Your task to perform on an android device: check google app version Image 0: 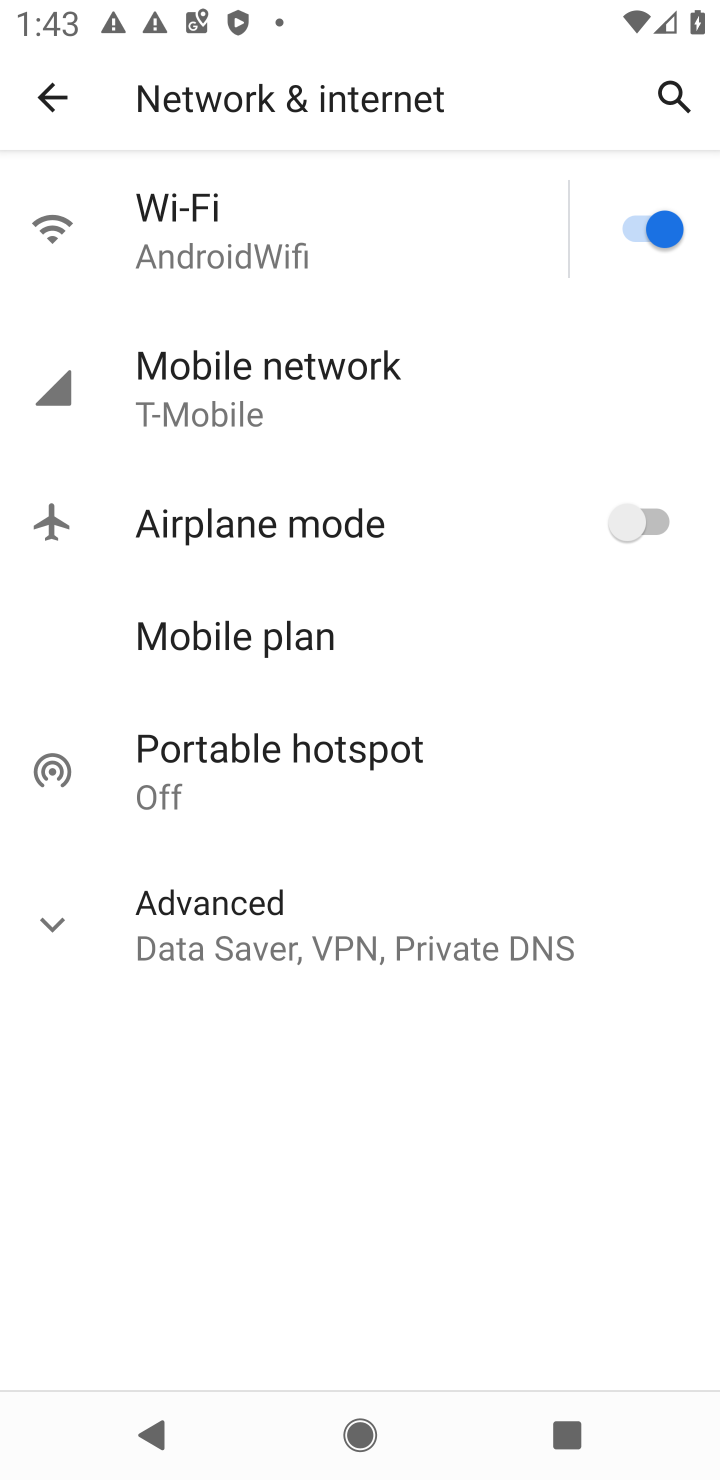
Step 0: press home button
Your task to perform on an android device: check google app version Image 1: 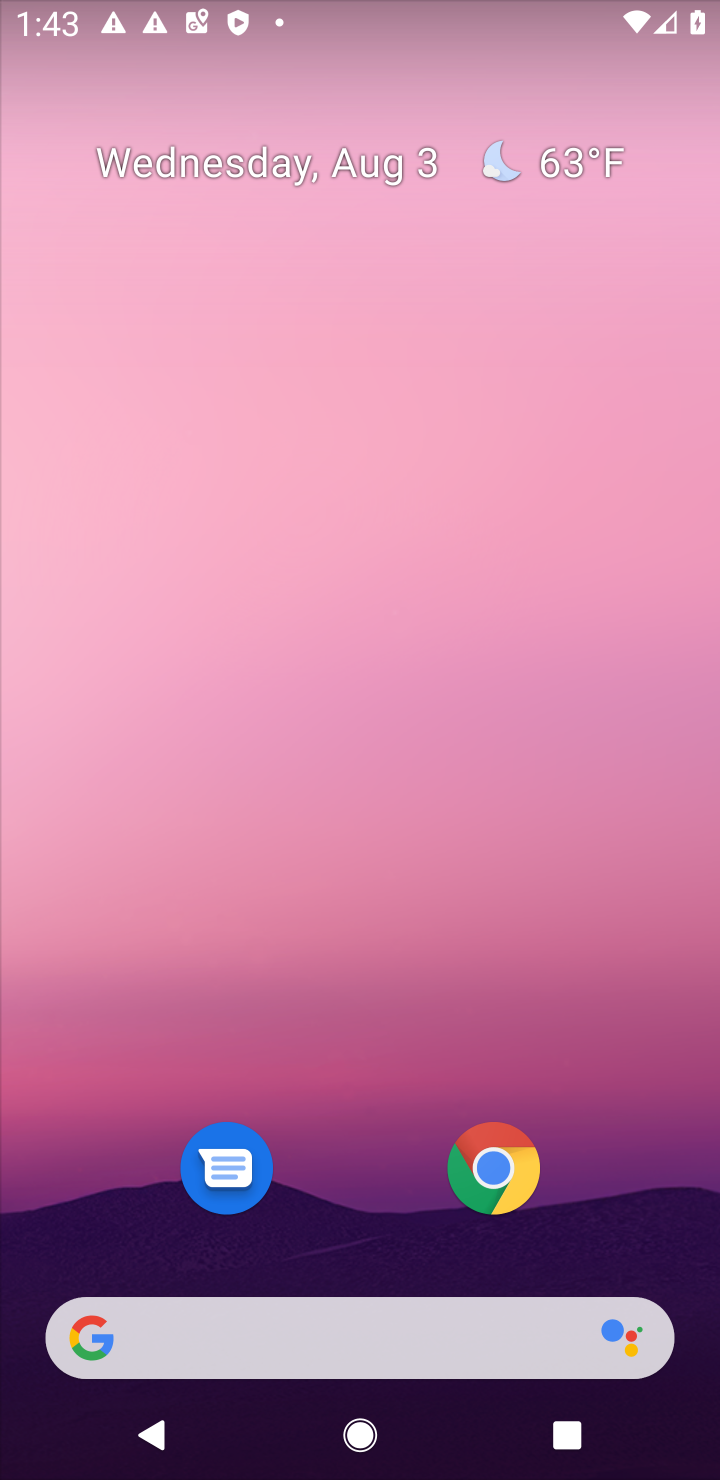
Step 1: click (497, 1167)
Your task to perform on an android device: check google app version Image 2: 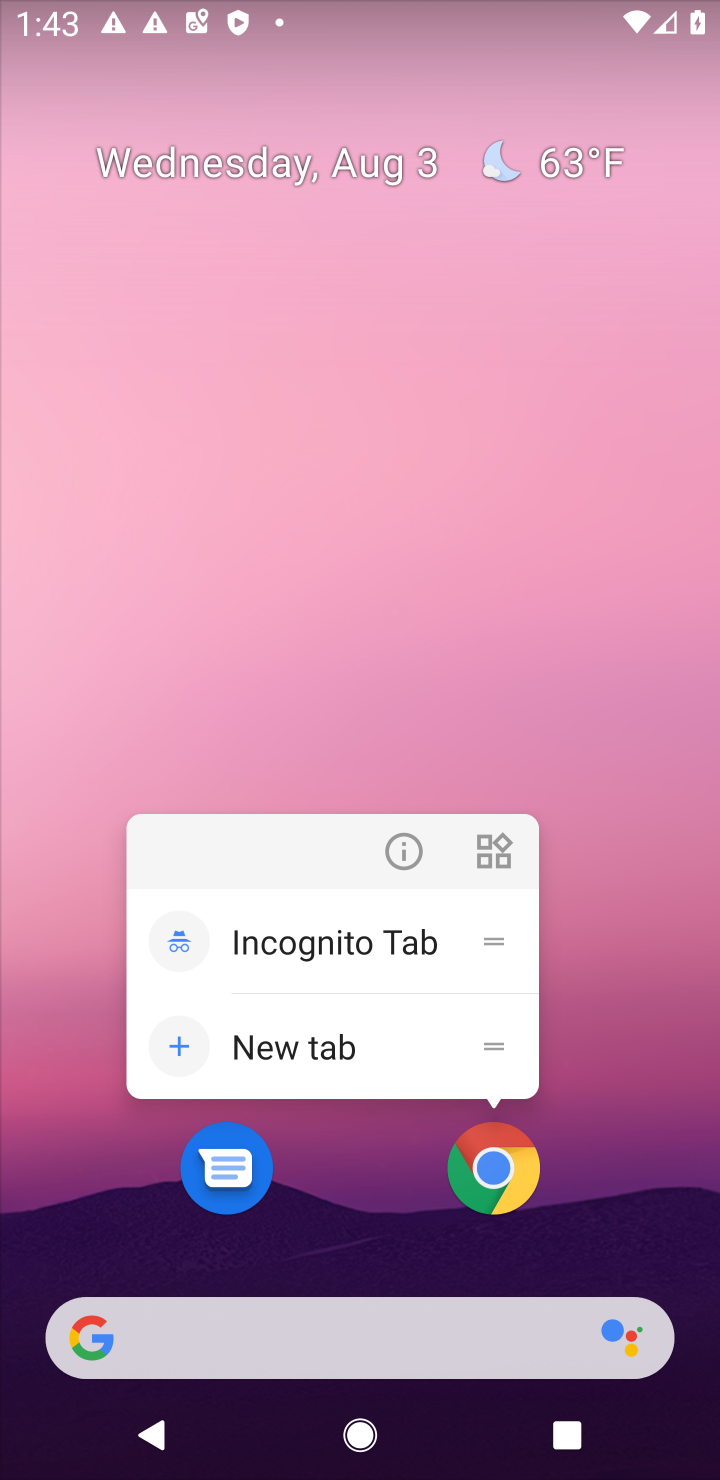
Step 2: click (494, 1167)
Your task to perform on an android device: check google app version Image 3: 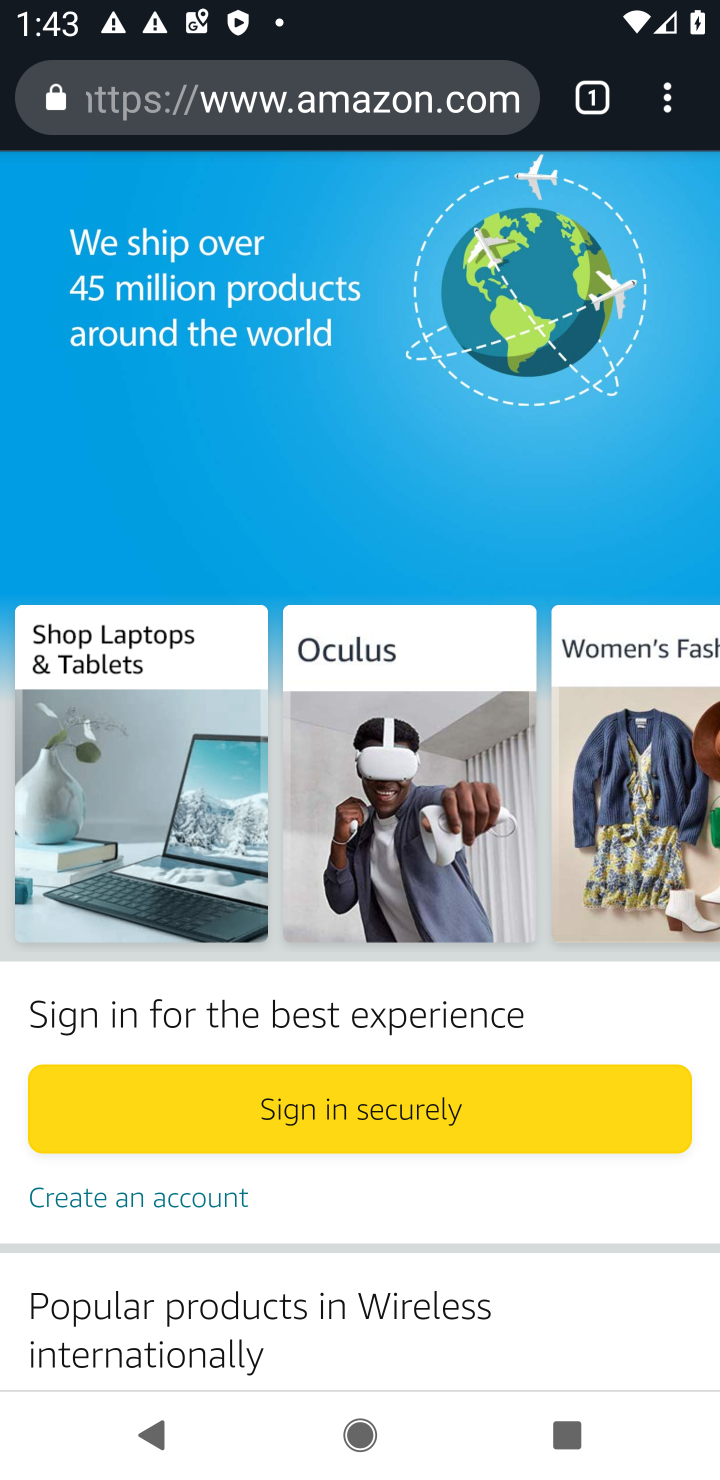
Step 3: click (659, 120)
Your task to perform on an android device: check google app version Image 4: 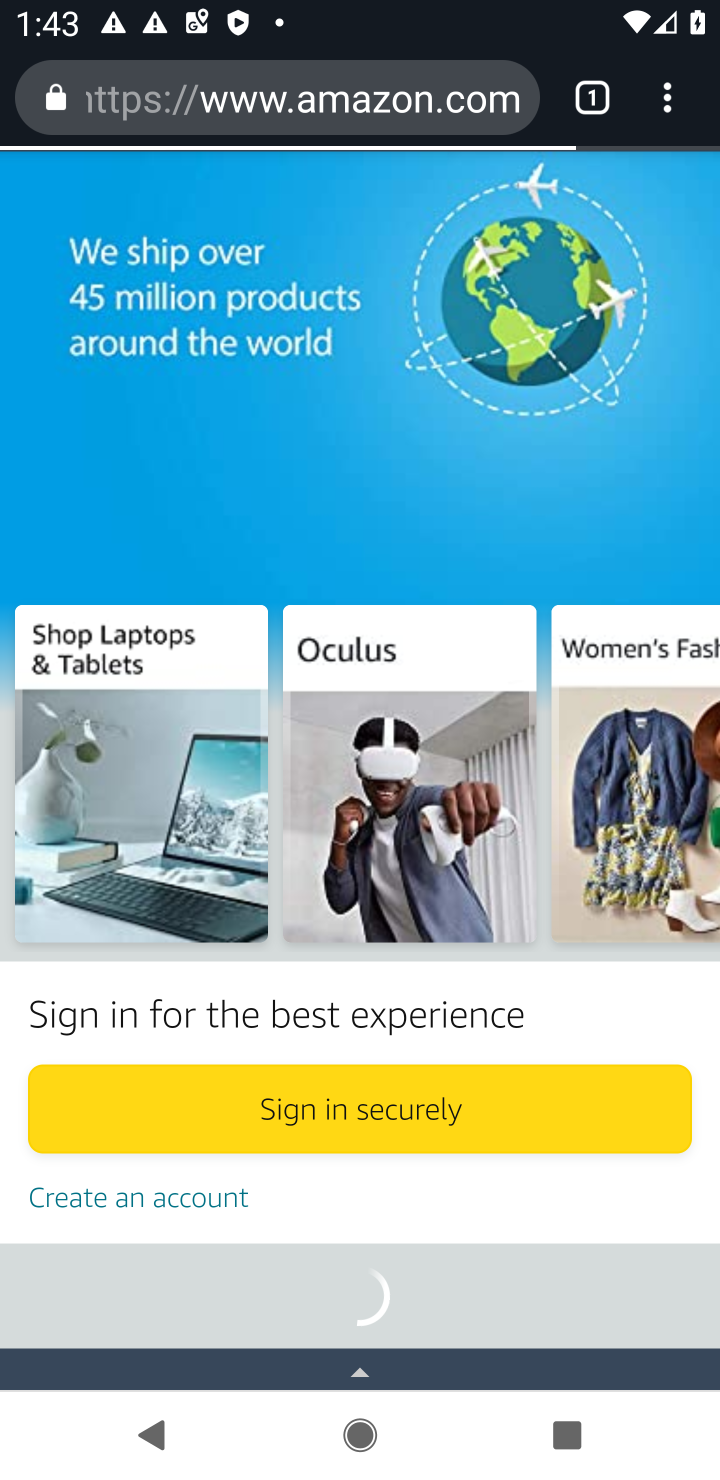
Step 4: click (661, 116)
Your task to perform on an android device: check google app version Image 5: 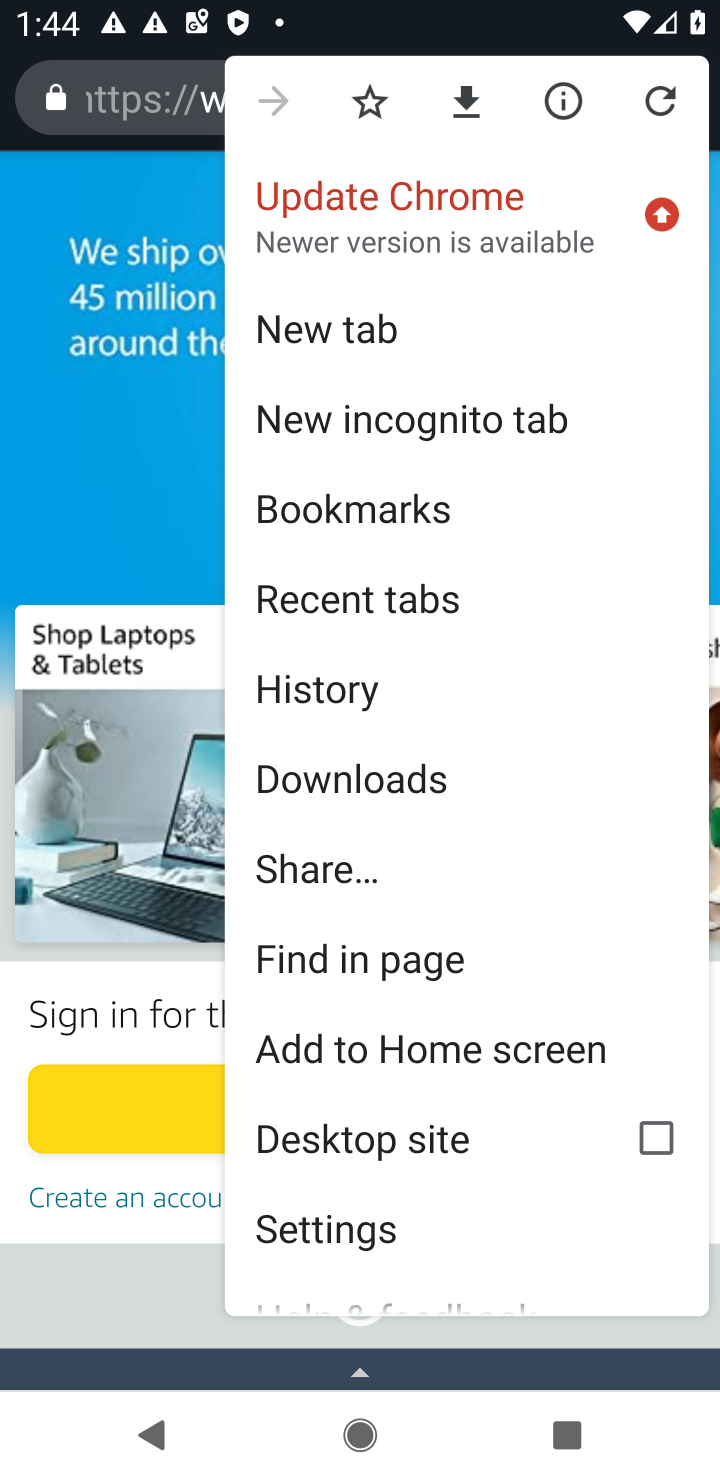
Step 5: click (339, 1228)
Your task to perform on an android device: check google app version Image 6: 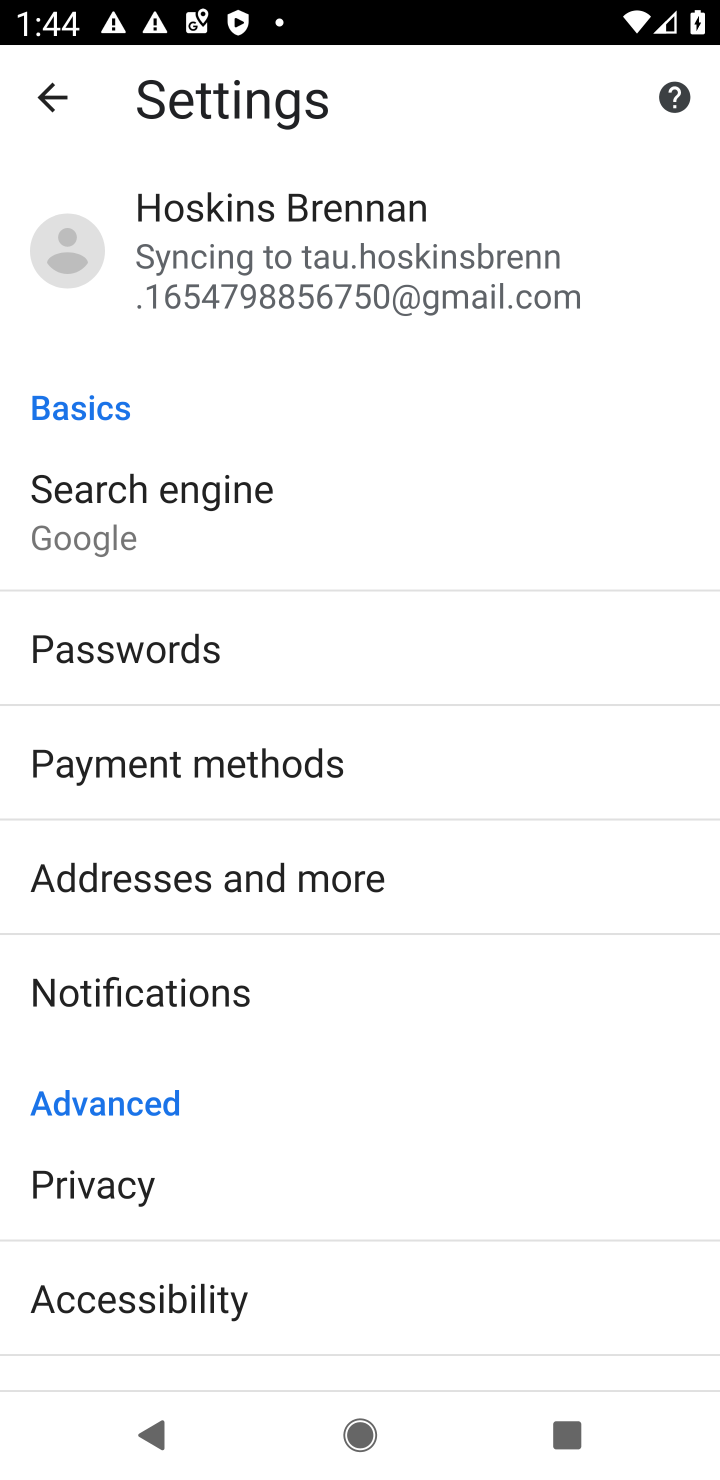
Step 6: drag from (388, 1350) to (431, 483)
Your task to perform on an android device: check google app version Image 7: 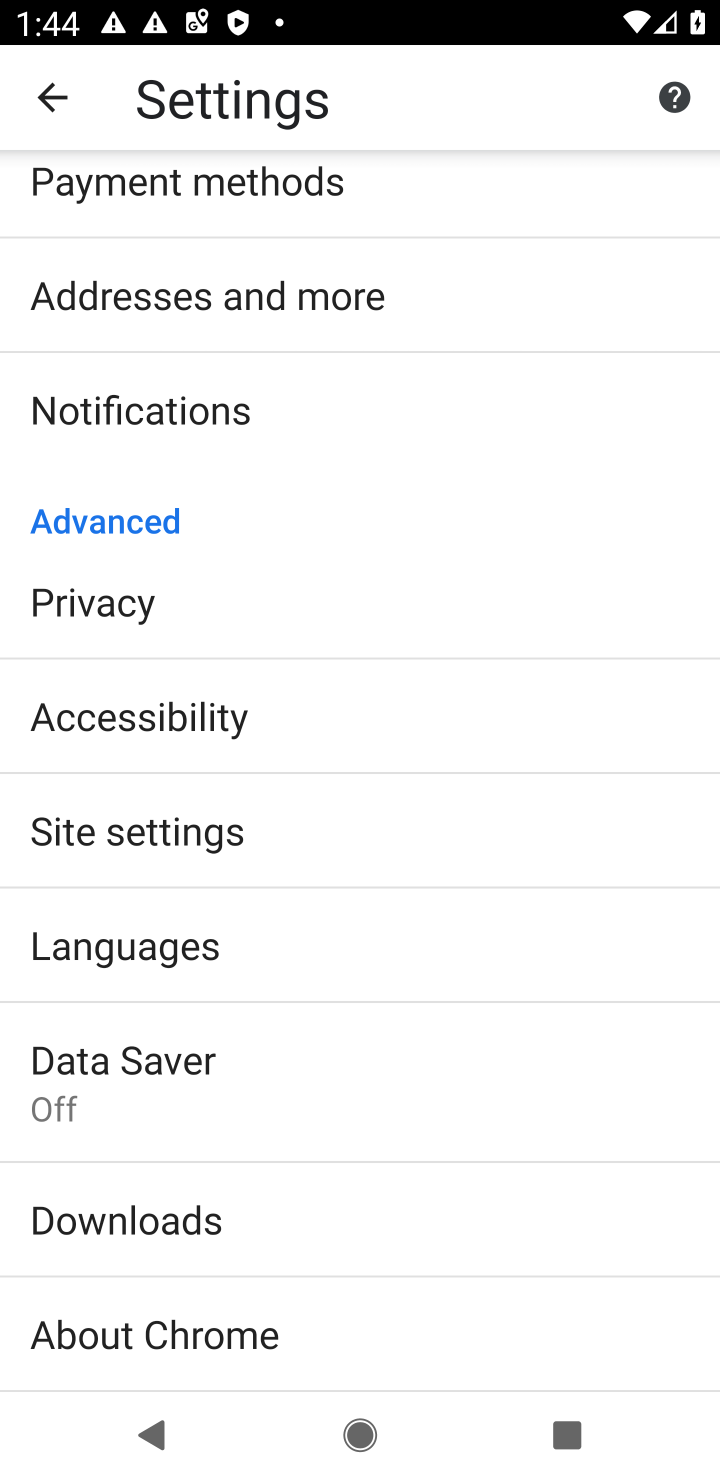
Step 7: click (119, 1332)
Your task to perform on an android device: check google app version Image 8: 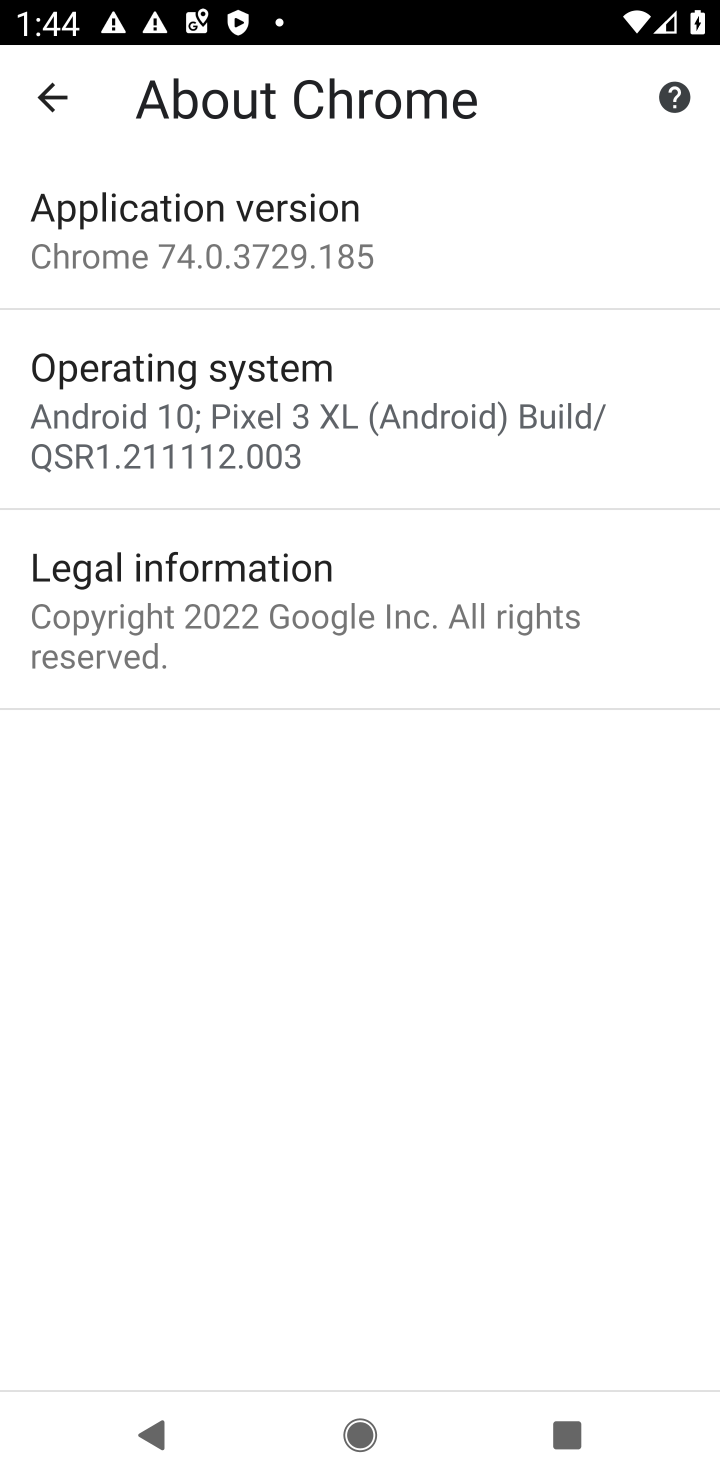
Step 8: click (206, 219)
Your task to perform on an android device: check google app version Image 9: 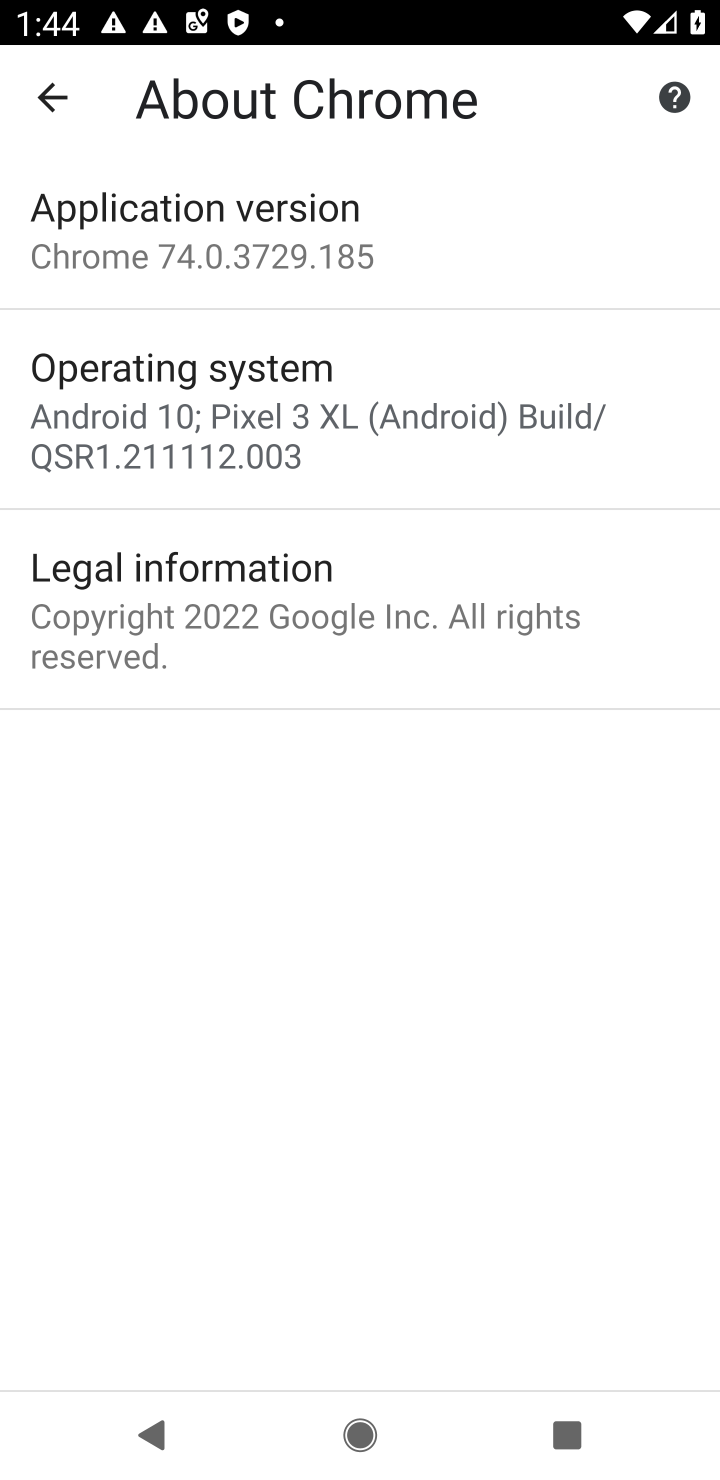
Step 9: task complete